Your task to perform on an android device: Go to Google Image 0: 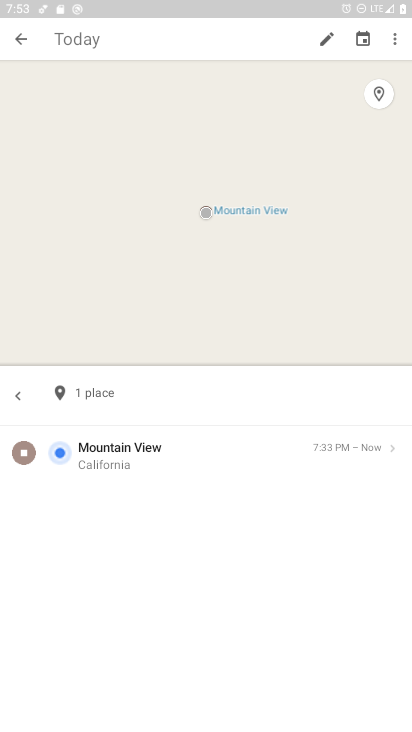
Step 0: press home button
Your task to perform on an android device: Go to Google Image 1: 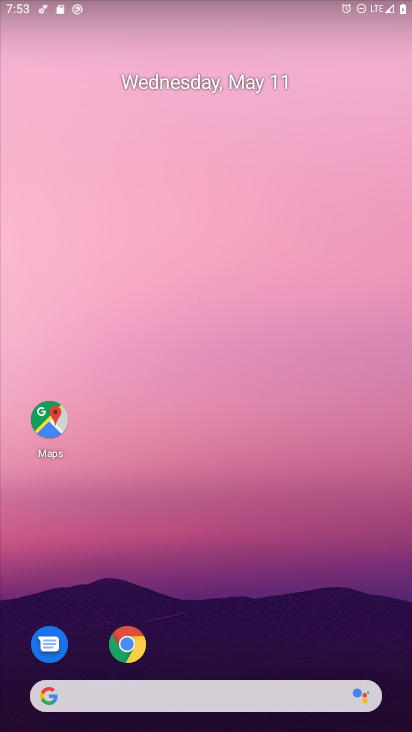
Step 1: click (151, 699)
Your task to perform on an android device: Go to Google Image 2: 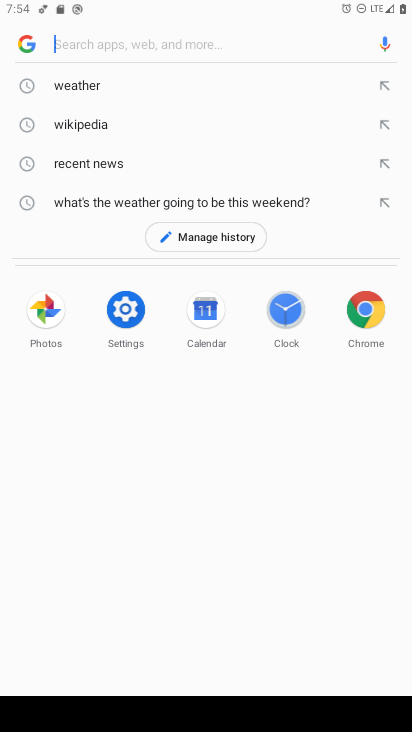
Step 2: task complete